Your task to perform on an android device: turn off location history Image 0: 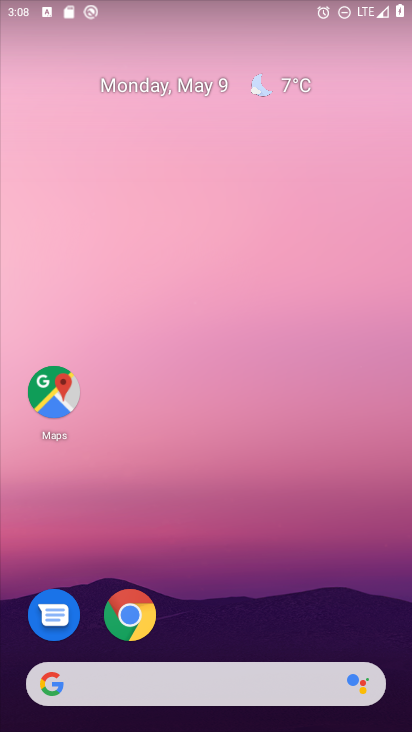
Step 0: drag from (375, 617) to (318, 141)
Your task to perform on an android device: turn off location history Image 1: 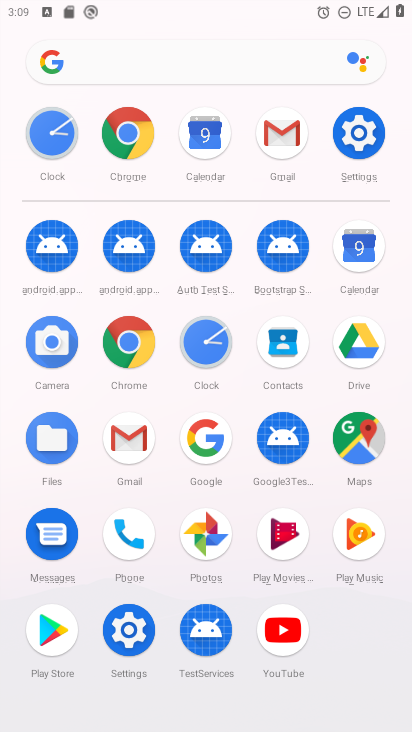
Step 1: click (128, 629)
Your task to perform on an android device: turn off location history Image 2: 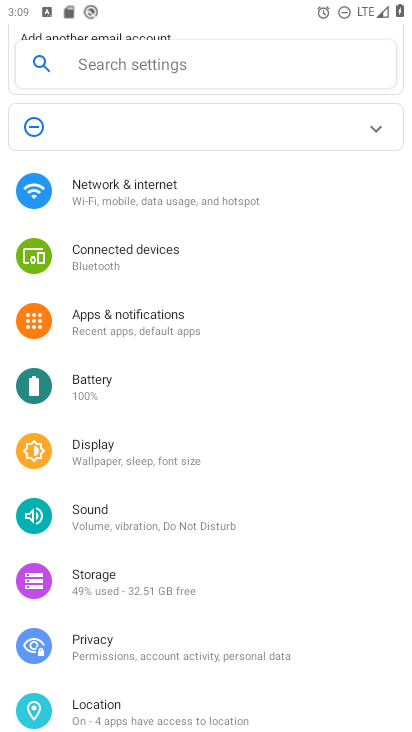
Step 2: drag from (170, 654) to (275, 153)
Your task to perform on an android device: turn off location history Image 3: 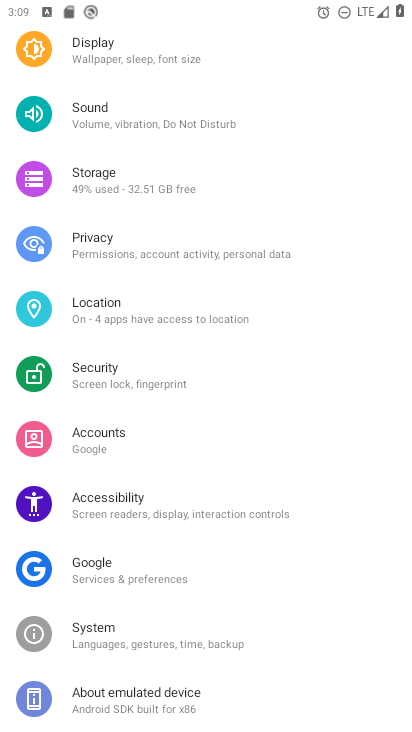
Step 3: click (125, 302)
Your task to perform on an android device: turn off location history Image 4: 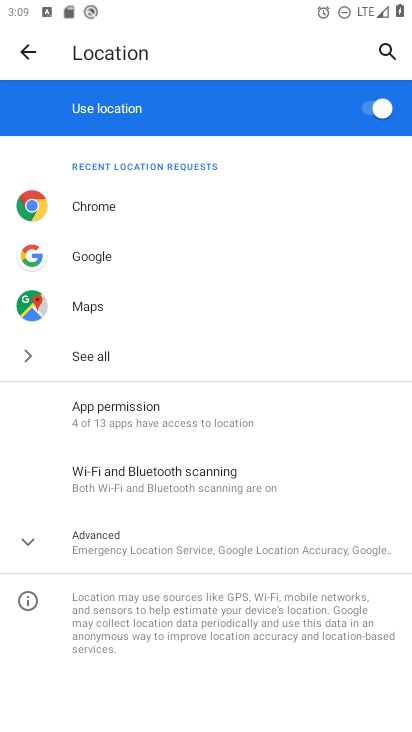
Step 4: click (364, 102)
Your task to perform on an android device: turn off location history Image 5: 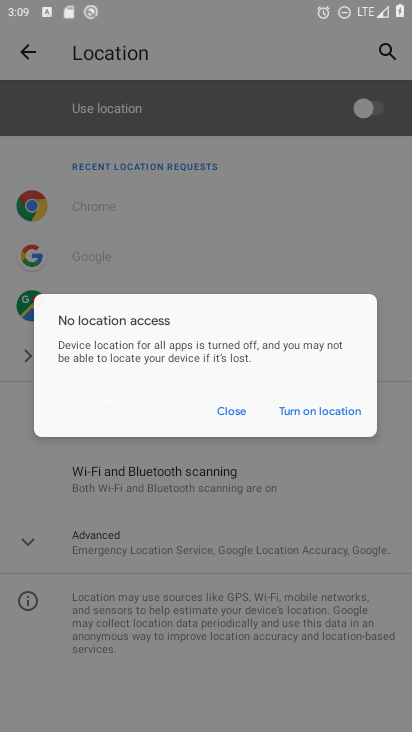
Step 5: task complete